Your task to perform on an android device: Search for sushi restaurants on Maps Image 0: 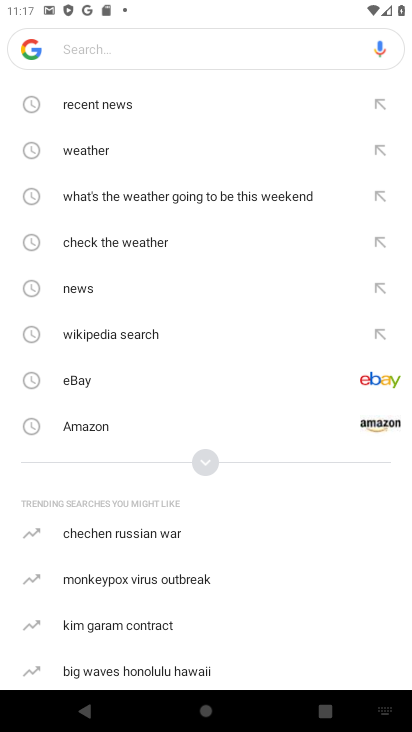
Step 0: press home button
Your task to perform on an android device: Search for sushi restaurants on Maps Image 1: 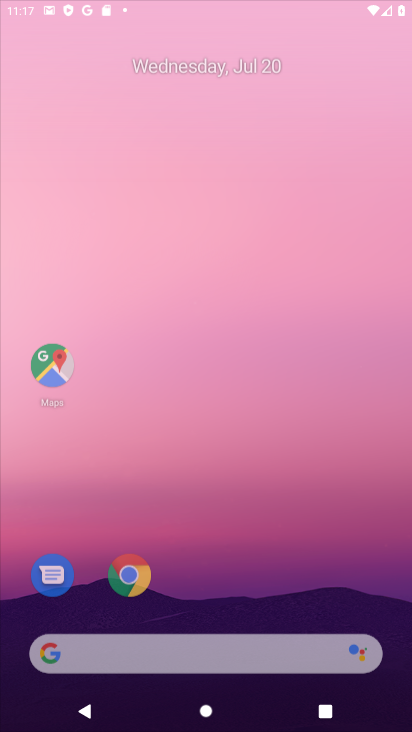
Step 1: drag from (150, 539) to (271, 161)
Your task to perform on an android device: Search for sushi restaurants on Maps Image 2: 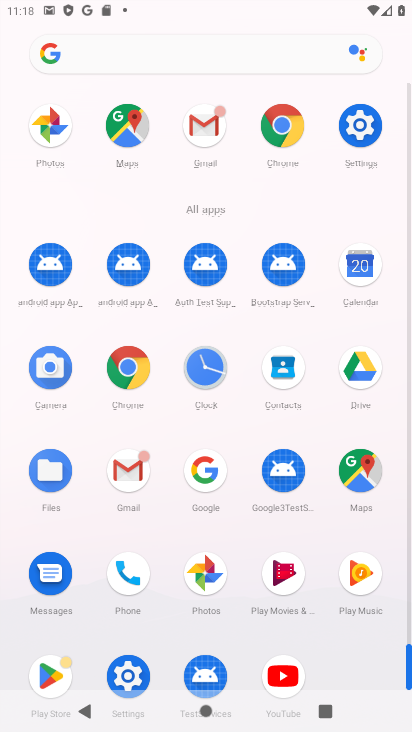
Step 2: click (348, 463)
Your task to perform on an android device: Search for sushi restaurants on Maps Image 3: 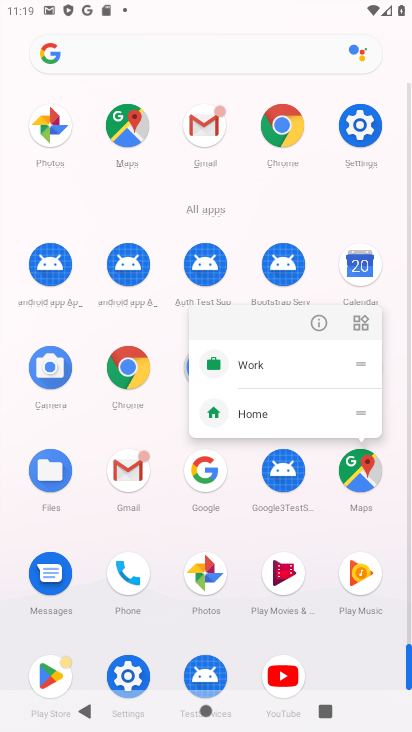
Step 3: click (316, 328)
Your task to perform on an android device: Search for sushi restaurants on Maps Image 4: 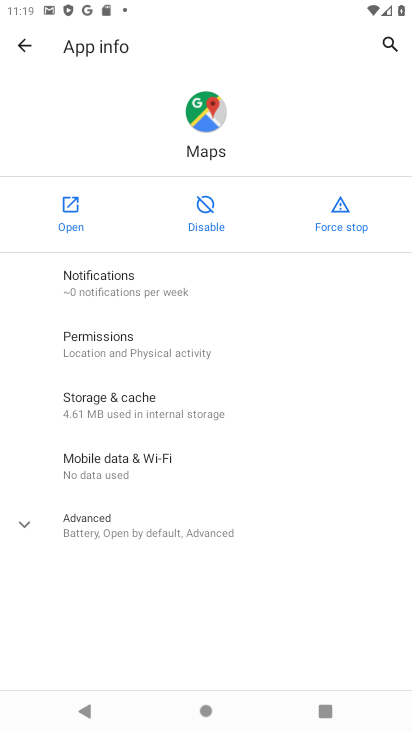
Step 4: click (62, 211)
Your task to perform on an android device: Search for sushi restaurants on Maps Image 5: 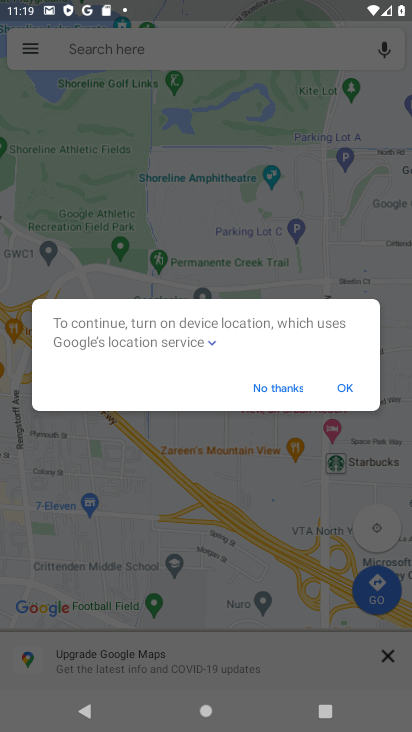
Step 5: click (348, 394)
Your task to perform on an android device: Search for sushi restaurants on Maps Image 6: 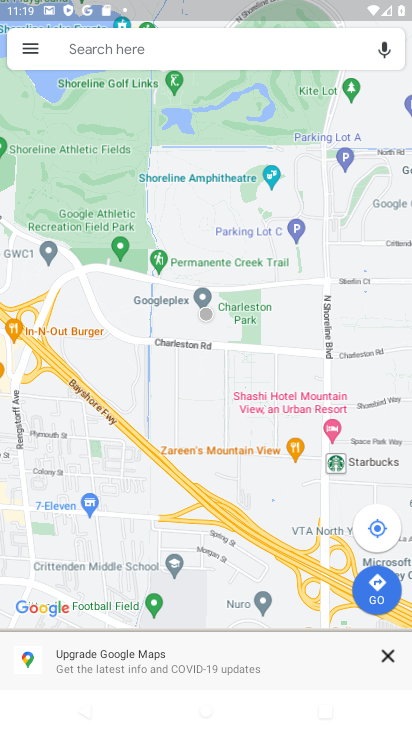
Step 6: click (152, 53)
Your task to perform on an android device: Search for sushi restaurants on Maps Image 7: 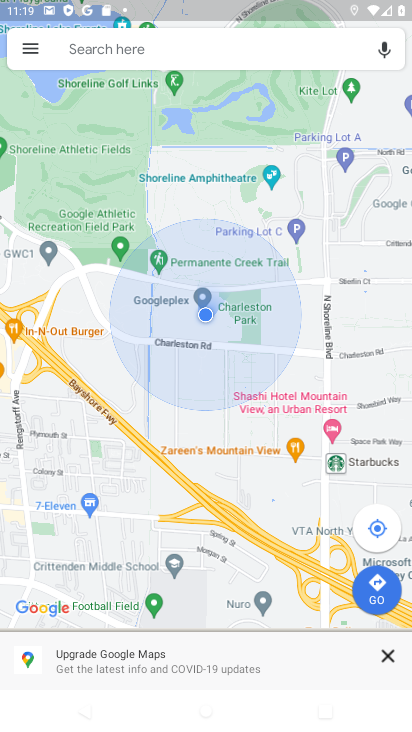
Step 7: click (150, 56)
Your task to perform on an android device: Search for sushi restaurants on Maps Image 8: 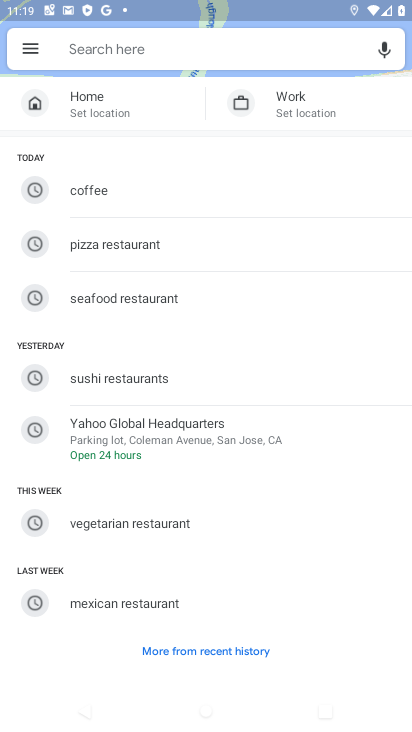
Step 8: click (113, 384)
Your task to perform on an android device: Search for sushi restaurants on Maps Image 9: 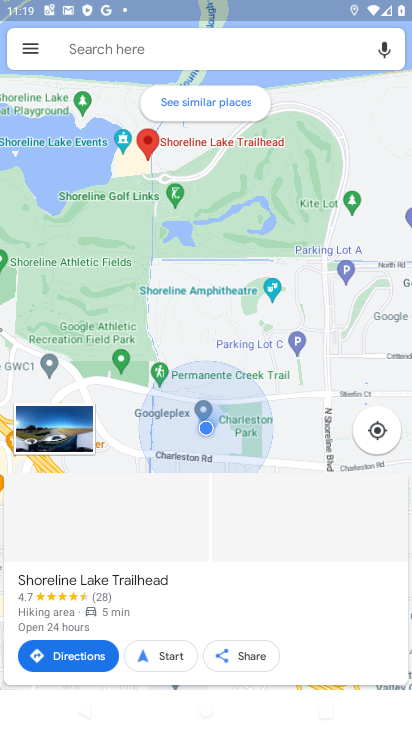
Step 9: task complete